Your task to perform on an android device: What's the news in Nepal? Image 0: 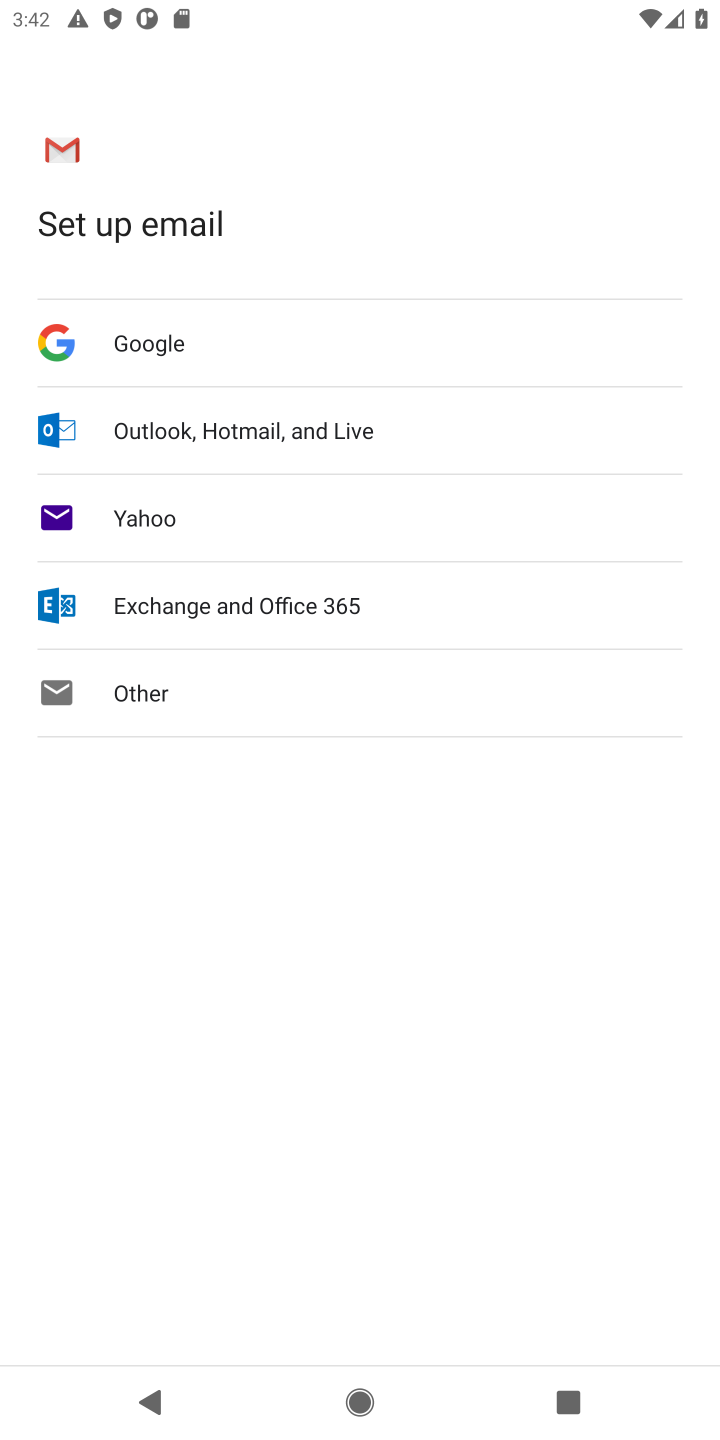
Step 0: press home button
Your task to perform on an android device: What's the news in Nepal? Image 1: 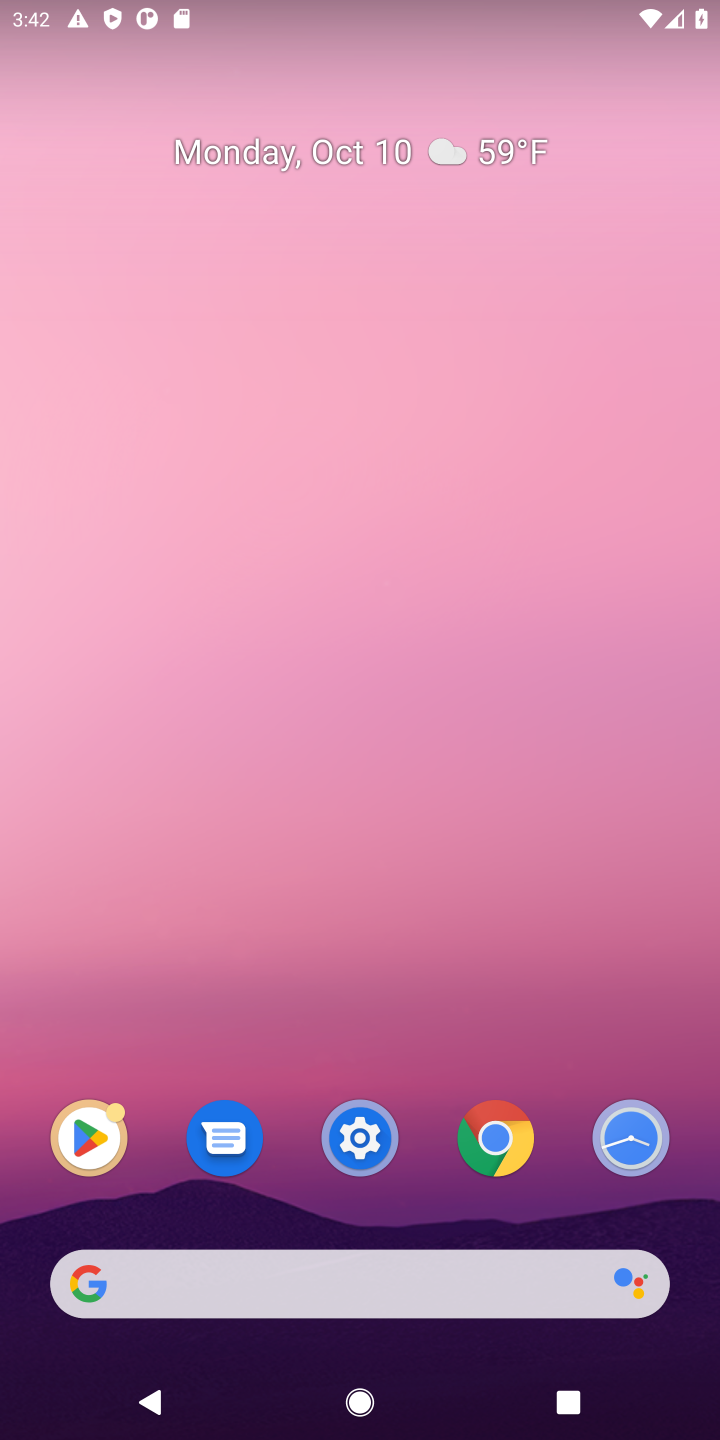
Step 1: drag from (279, 747) to (674, 970)
Your task to perform on an android device: What's the news in Nepal? Image 2: 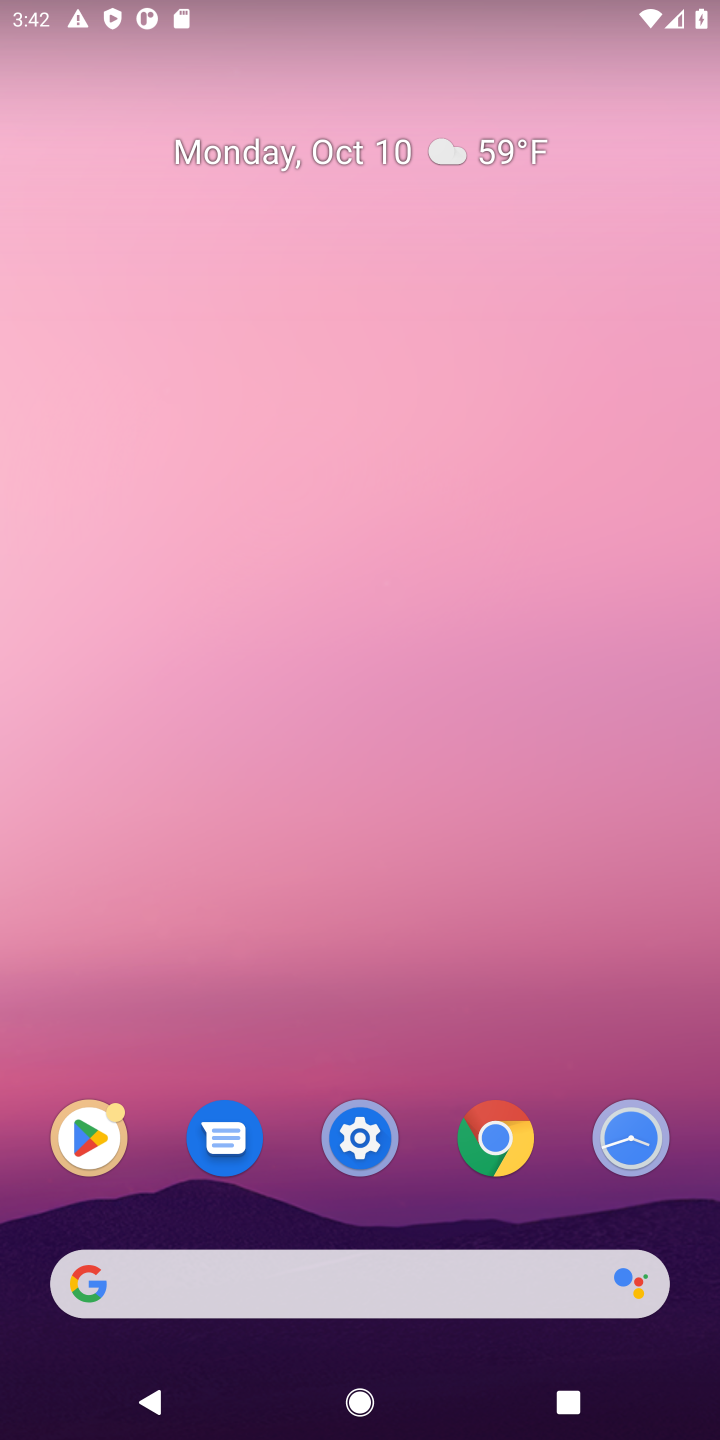
Step 2: drag from (345, 1138) to (349, 18)
Your task to perform on an android device: What's the news in Nepal? Image 3: 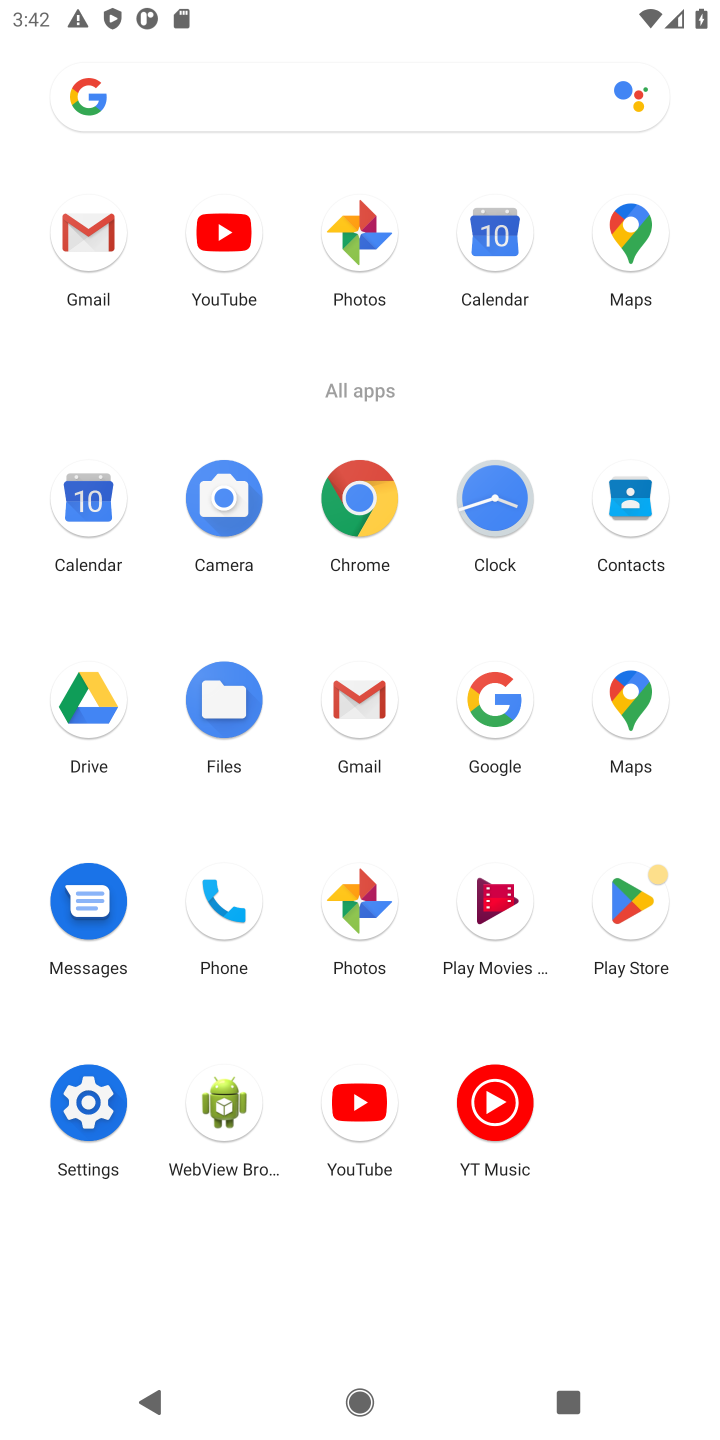
Step 3: click (482, 692)
Your task to perform on an android device: What's the news in Nepal? Image 4: 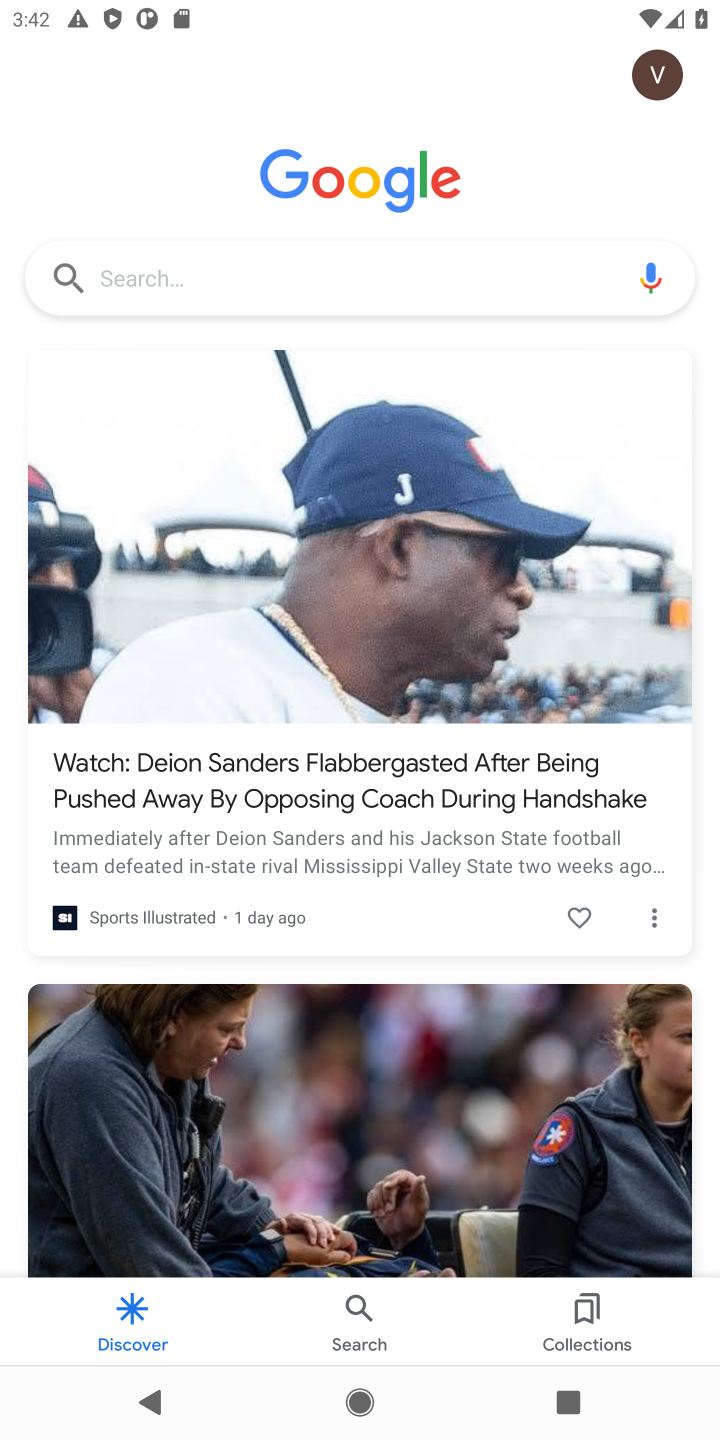
Step 4: click (188, 263)
Your task to perform on an android device: What's the news in Nepal? Image 5: 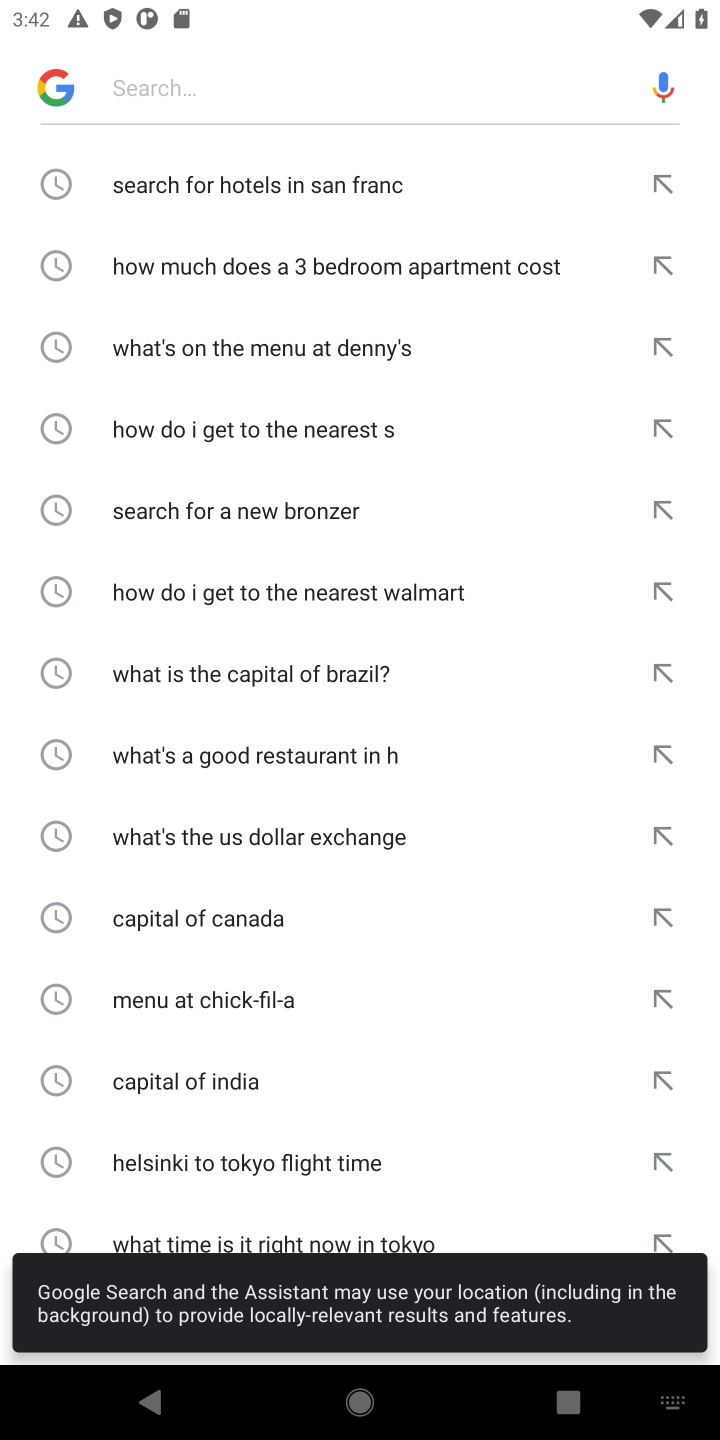
Step 5: type "What's the news in Nepal?"
Your task to perform on an android device: What's the news in Nepal? Image 6: 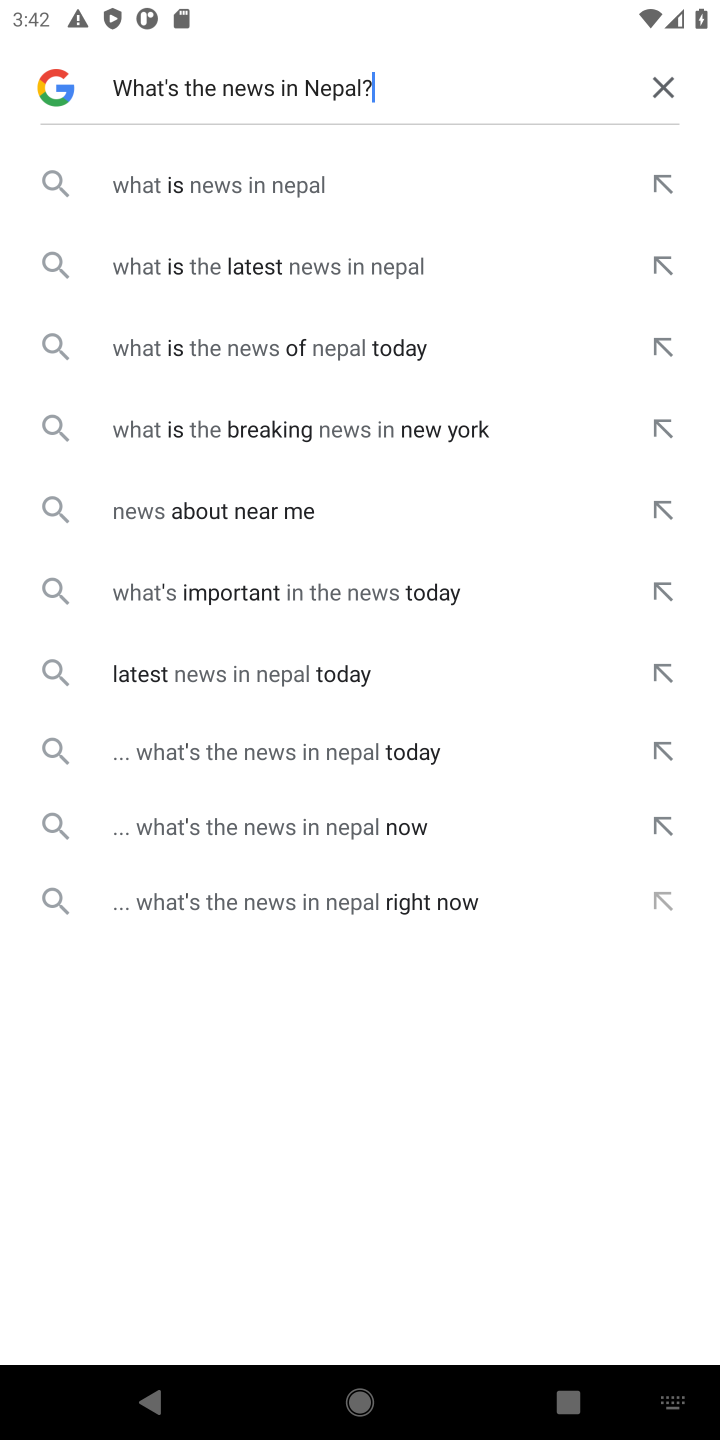
Step 6: click (227, 182)
Your task to perform on an android device: What's the news in Nepal? Image 7: 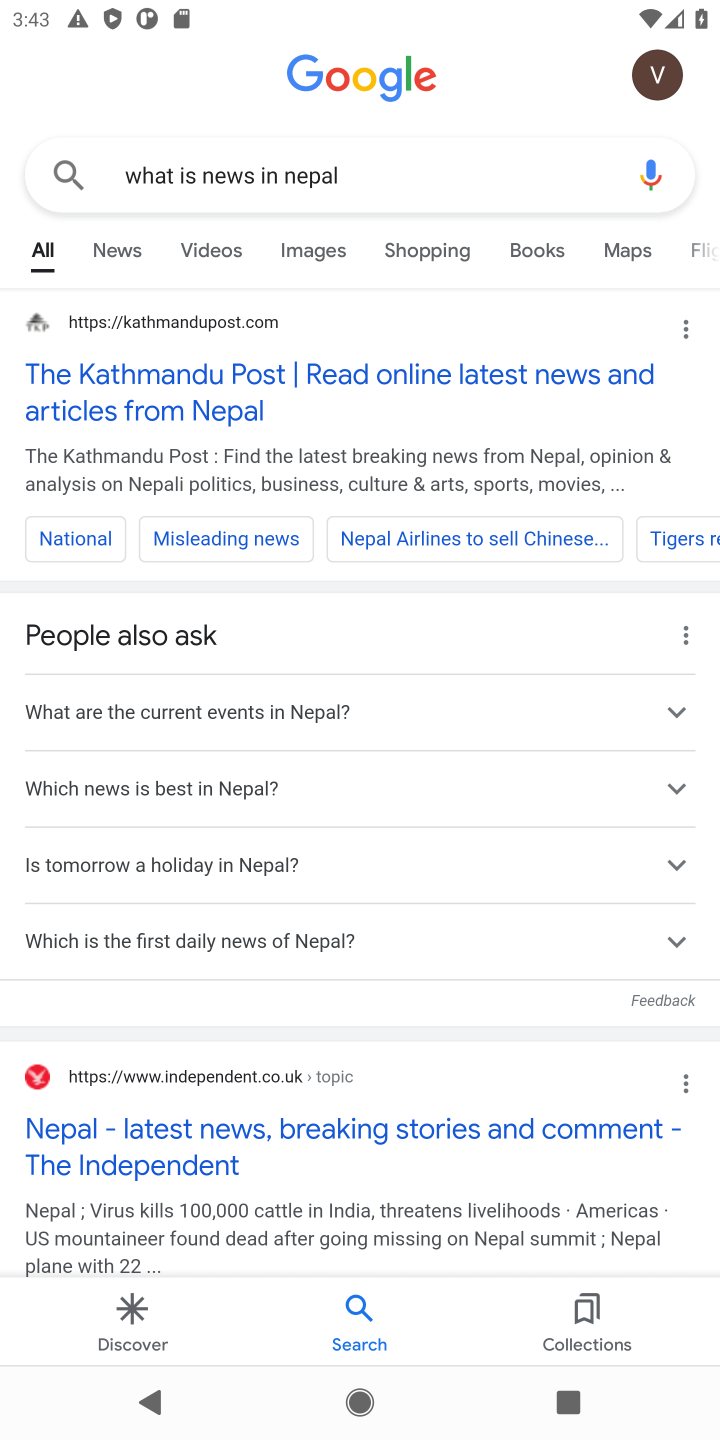
Step 7: click (392, 363)
Your task to perform on an android device: What's the news in Nepal? Image 8: 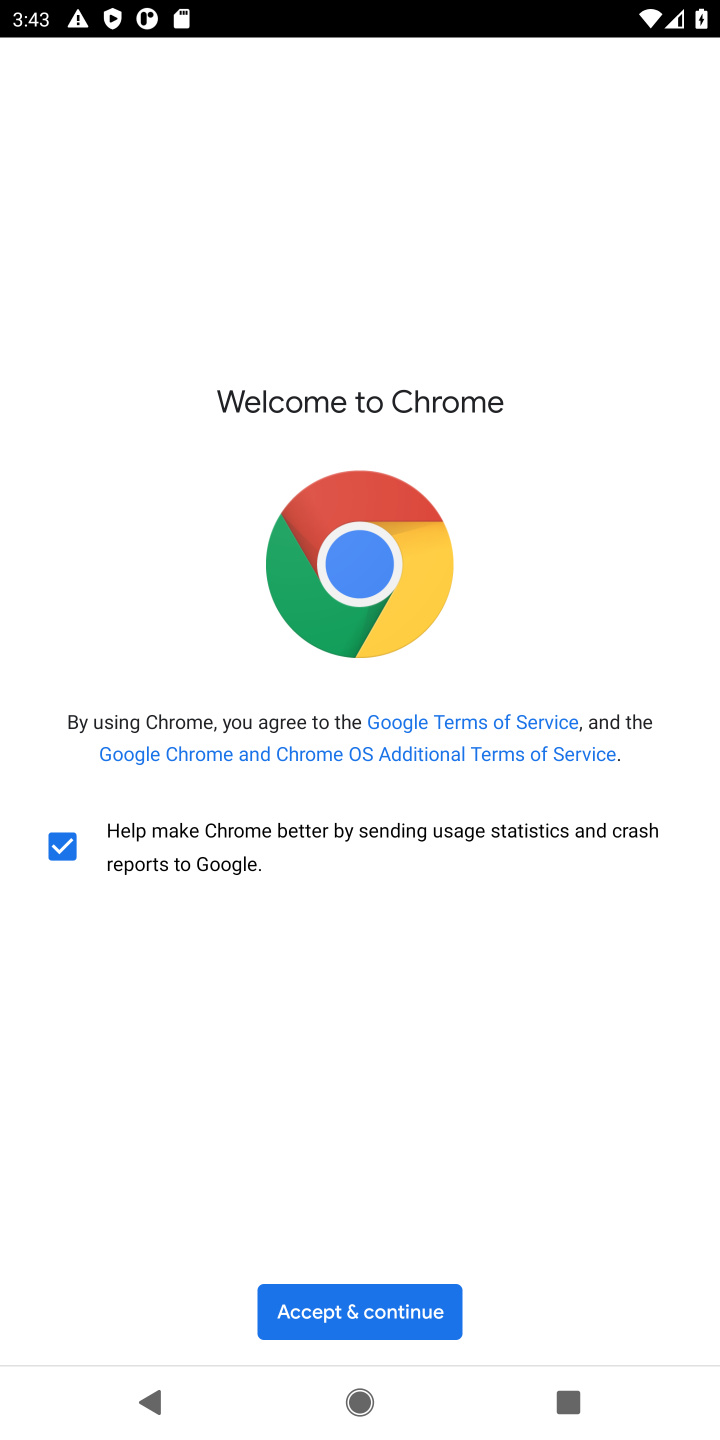
Step 8: click (317, 1304)
Your task to perform on an android device: What's the news in Nepal? Image 9: 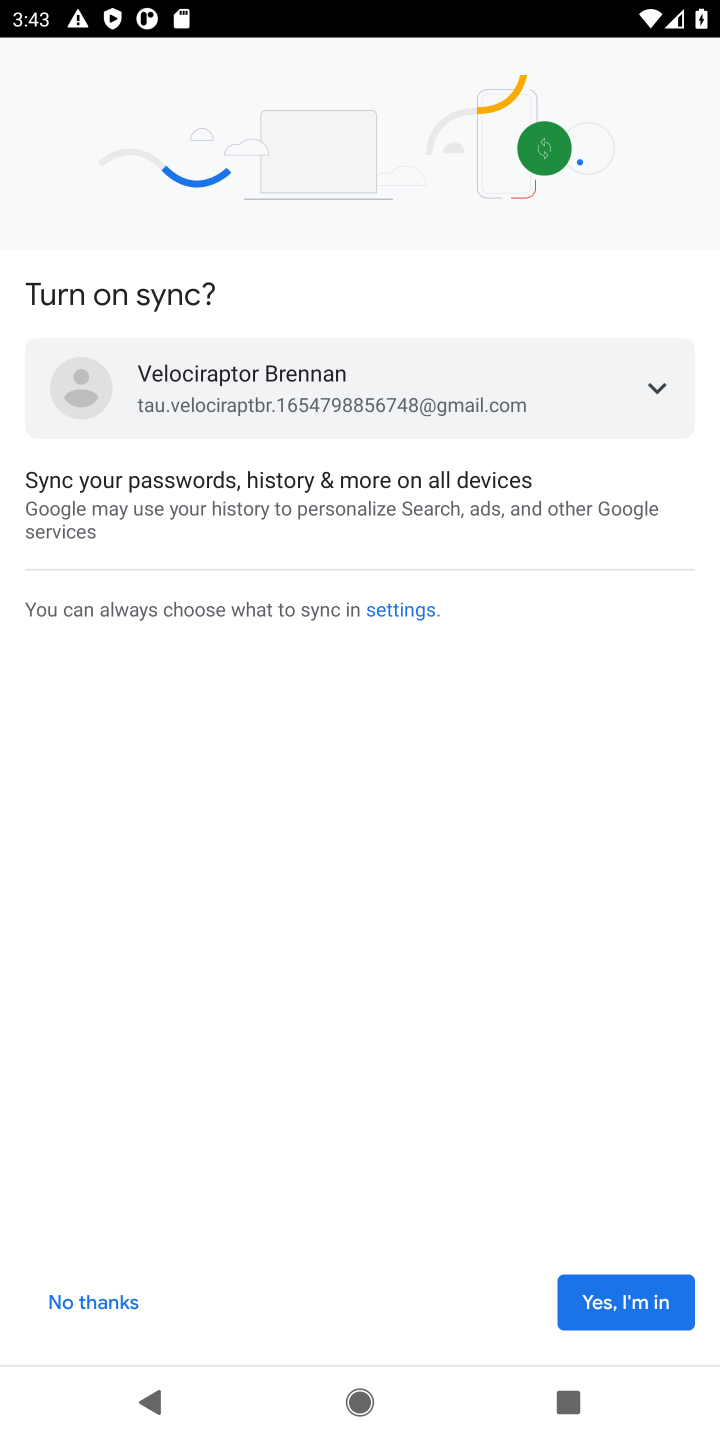
Step 9: click (597, 1304)
Your task to perform on an android device: What's the news in Nepal? Image 10: 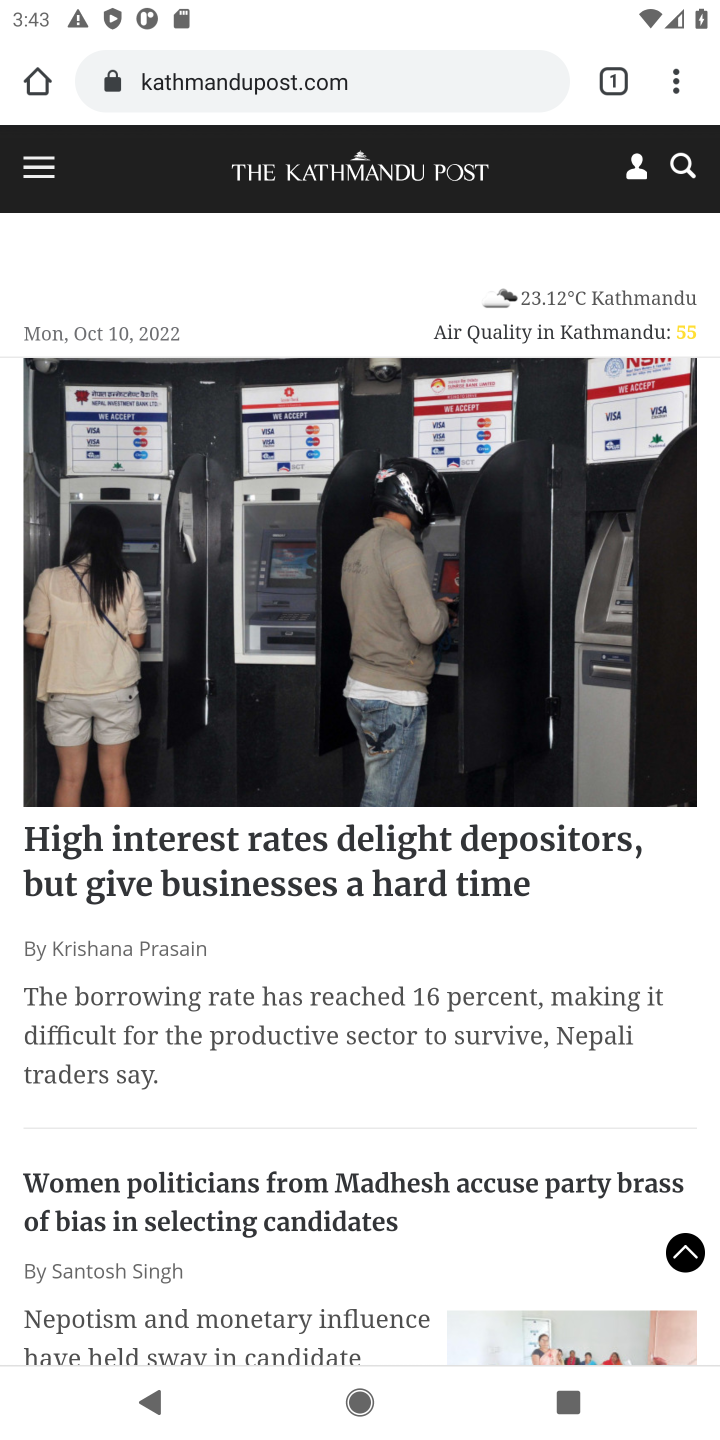
Step 10: task complete